Your task to perform on an android device: Open maps Image 0: 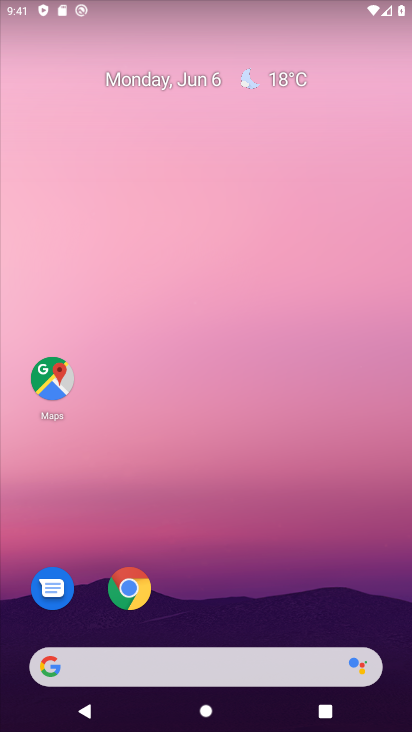
Step 0: press home button
Your task to perform on an android device: Open maps Image 1: 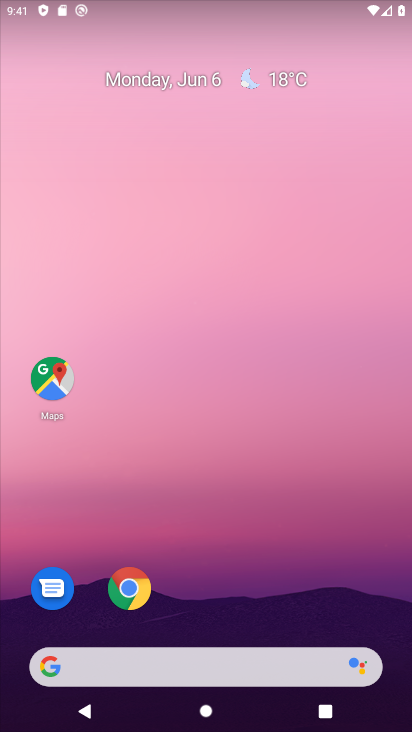
Step 1: click (50, 373)
Your task to perform on an android device: Open maps Image 2: 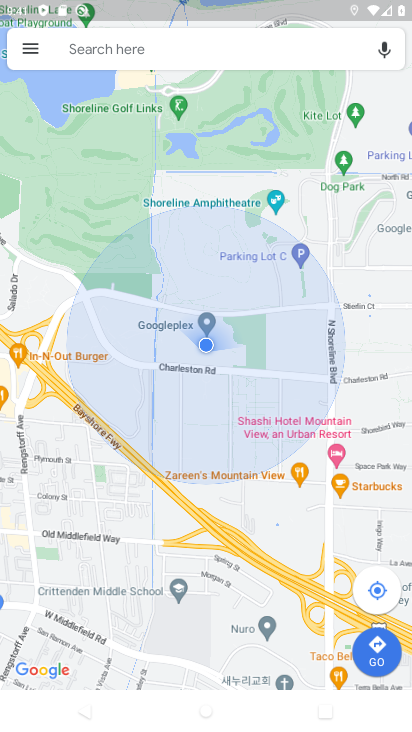
Step 2: task complete